Your task to perform on an android device: turn off sleep mode Image 0: 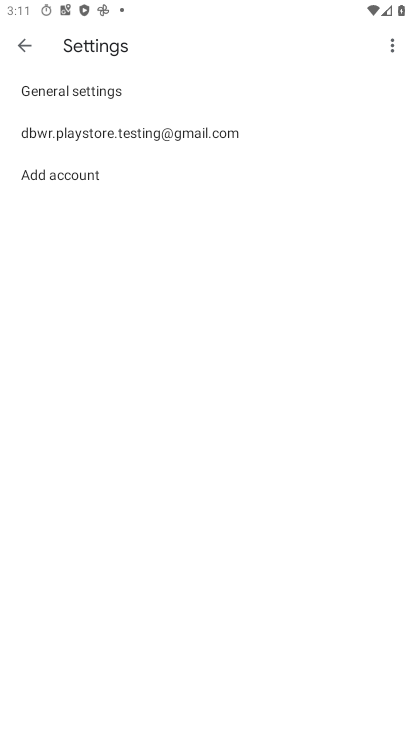
Step 0: press home button
Your task to perform on an android device: turn off sleep mode Image 1: 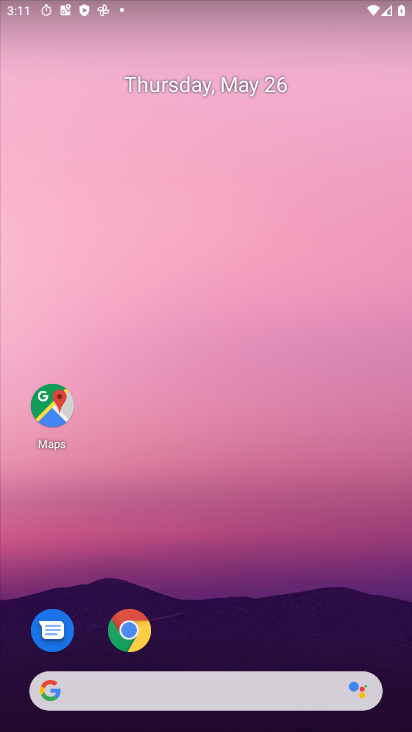
Step 1: drag from (284, 580) to (289, 436)
Your task to perform on an android device: turn off sleep mode Image 2: 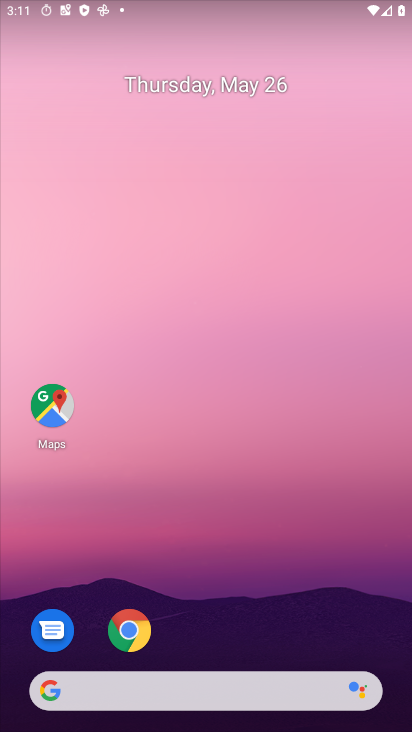
Step 2: drag from (281, 594) to (330, 279)
Your task to perform on an android device: turn off sleep mode Image 3: 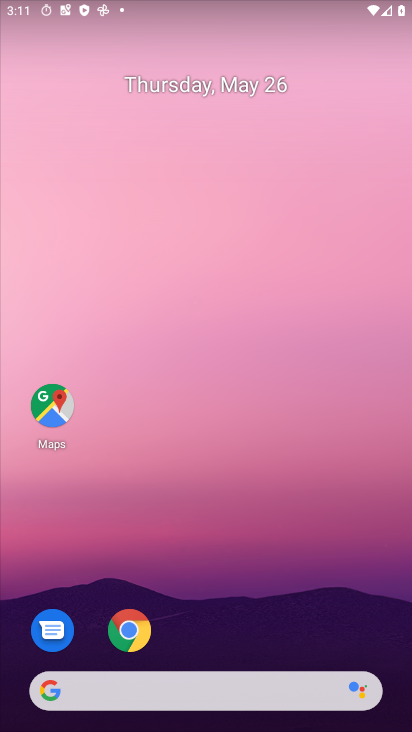
Step 3: drag from (233, 621) to (195, 124)
Your task to perform on an android device: turn off sleep mode Image 4: 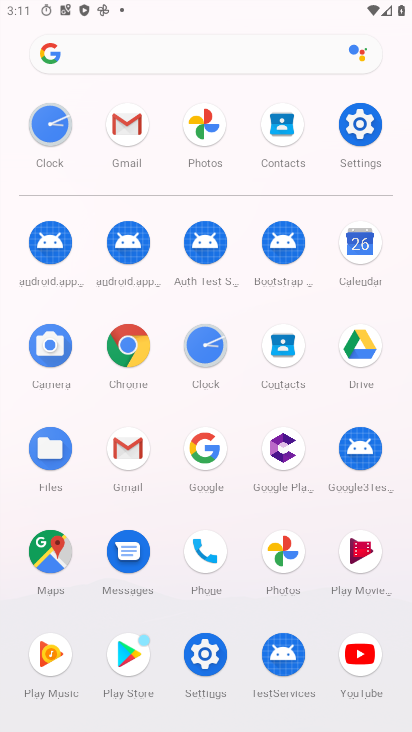
Step 4: click (346, 121)
Your task to perform on an android device: turn off sleep mode Image 5: 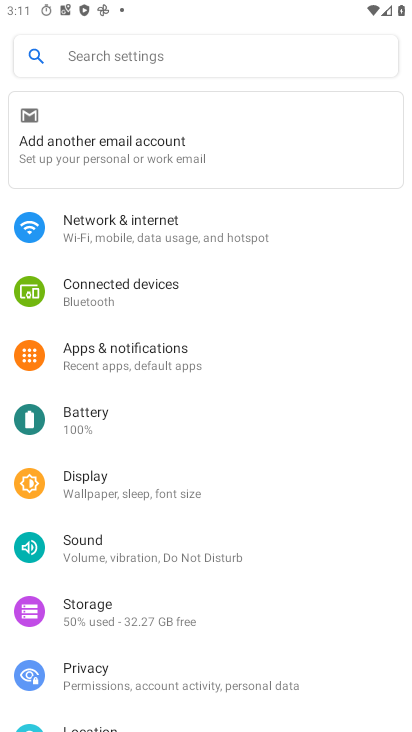
Step 5: click (108, 481)
Your task to perform on an android device: turn off sleep mode Image 6: 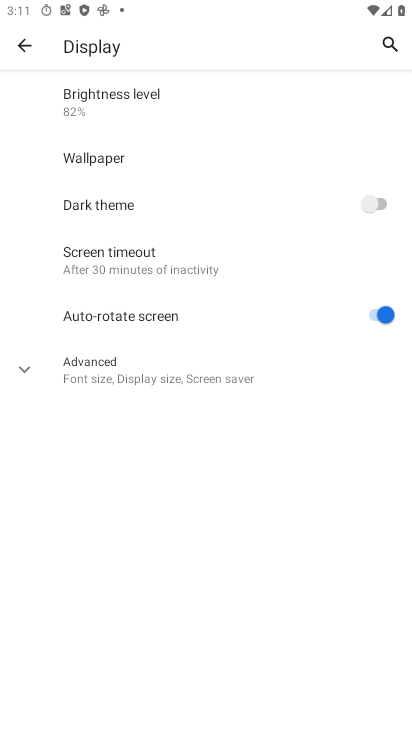
Step 6: click (118, 389)
Your task to perform on an android device: turn off sleep mode Image 7: 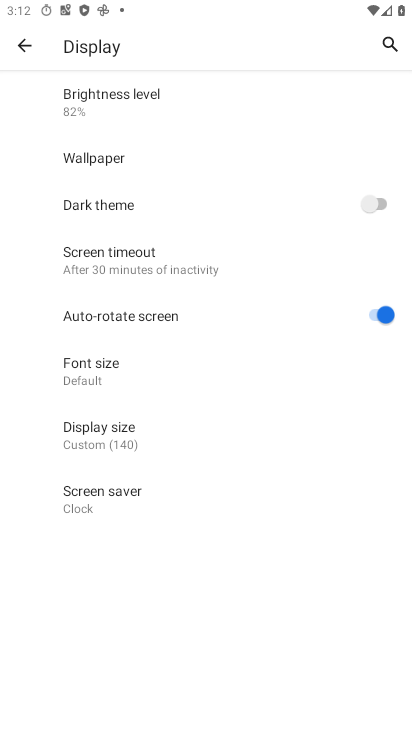
Step 7: task complete